Your task to perform on an android device: toggle javascript in the chrome app Image 0: 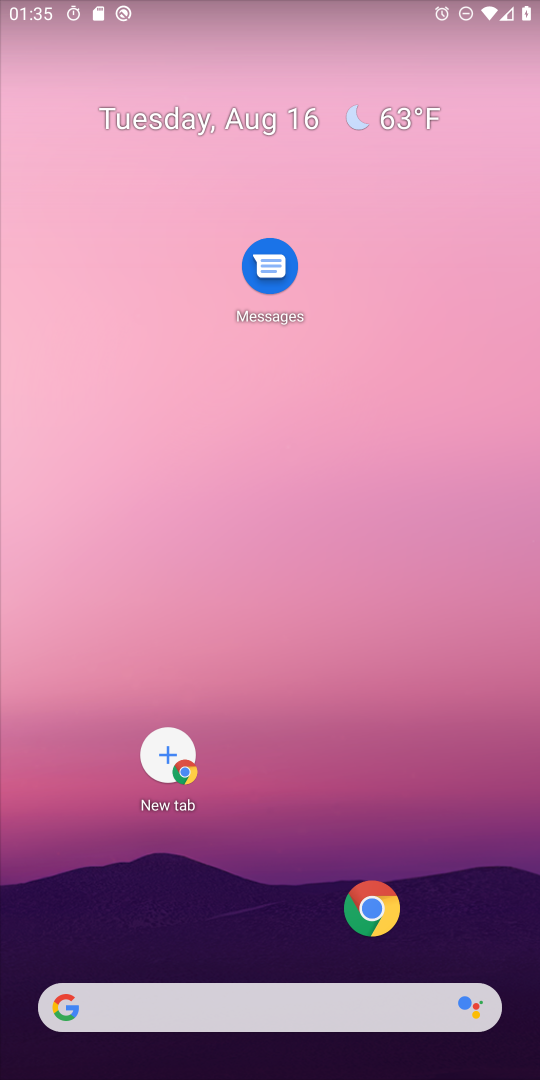
Step 0: click (354, 909)
Your task to perform on an android device: toggle javascript in the chrome app Image 1: 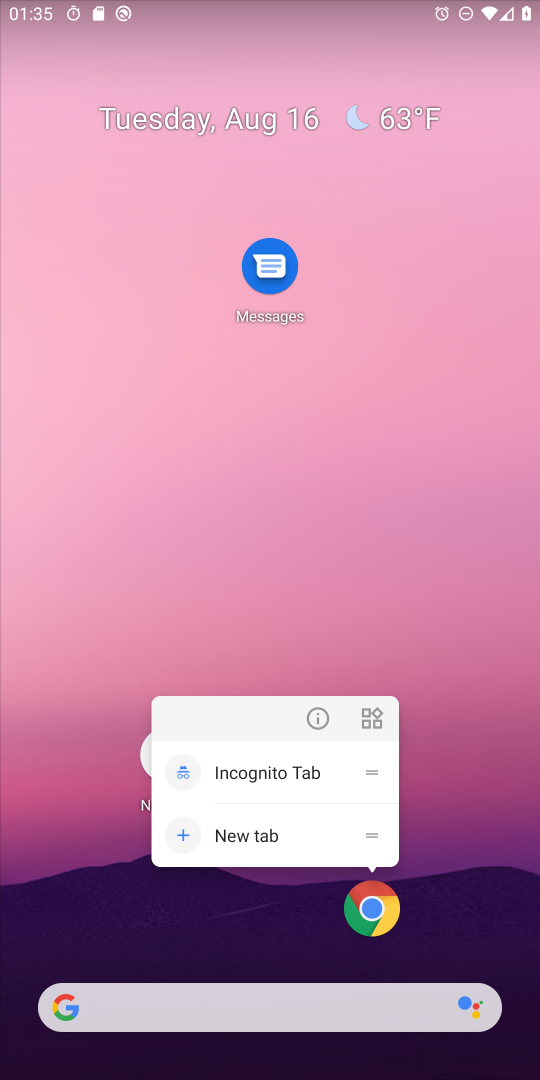
Step 1: click (373, 909)
Your task to perform on an android device: toggle javascript in the chrome app Image 2: 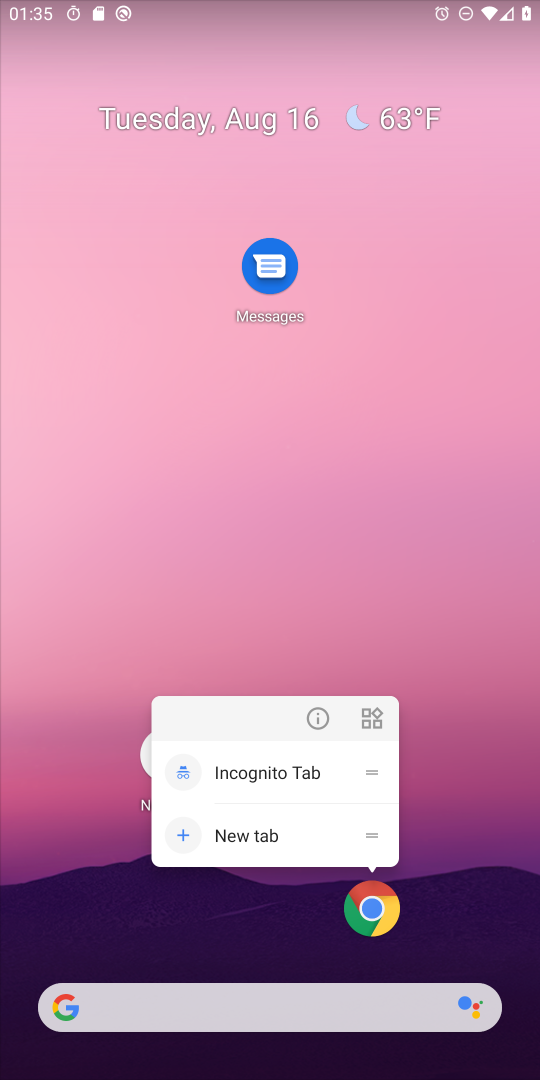
Step 2: click (373, 909)
Your task to perform on an android device: toggle javascript in the chrome app Image 3: 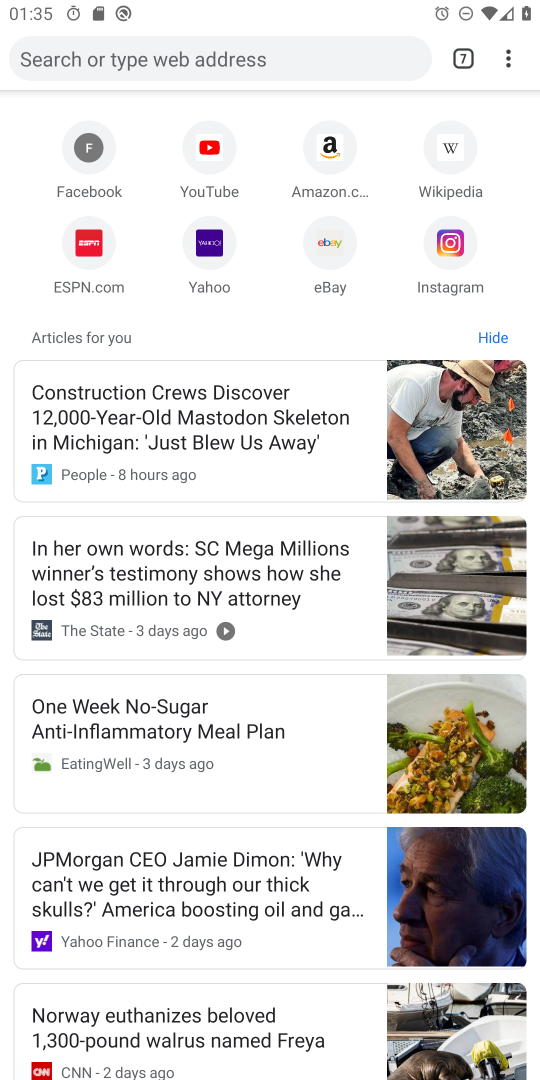
Step 3: click (518, 53)
Your task to perform on an android device: toggle javascript in the chrome app Image 4: 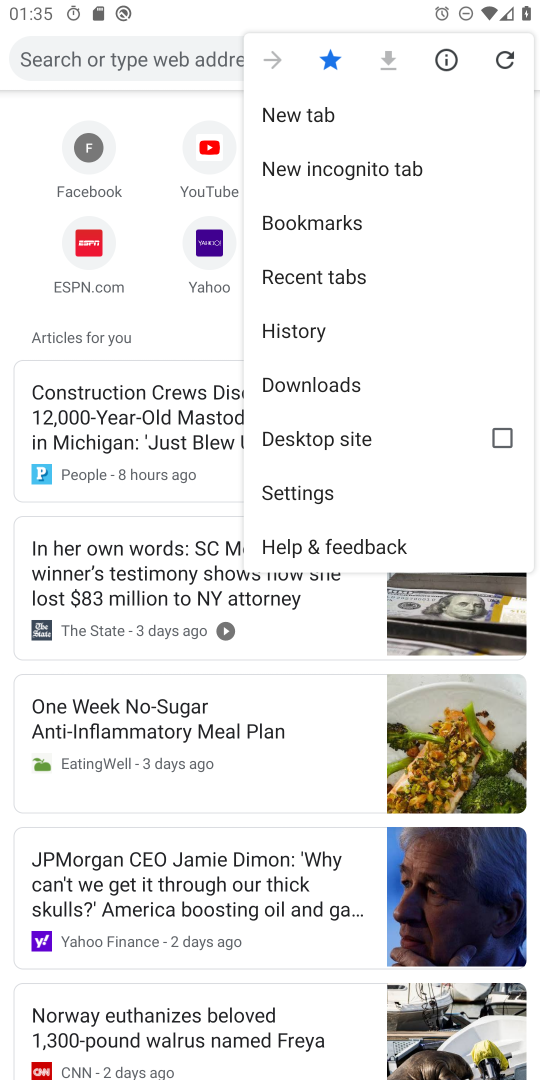
Step 4: click (317, 488)
Your task to perform on an android device: toggle javascript in the chrome app Image 5: 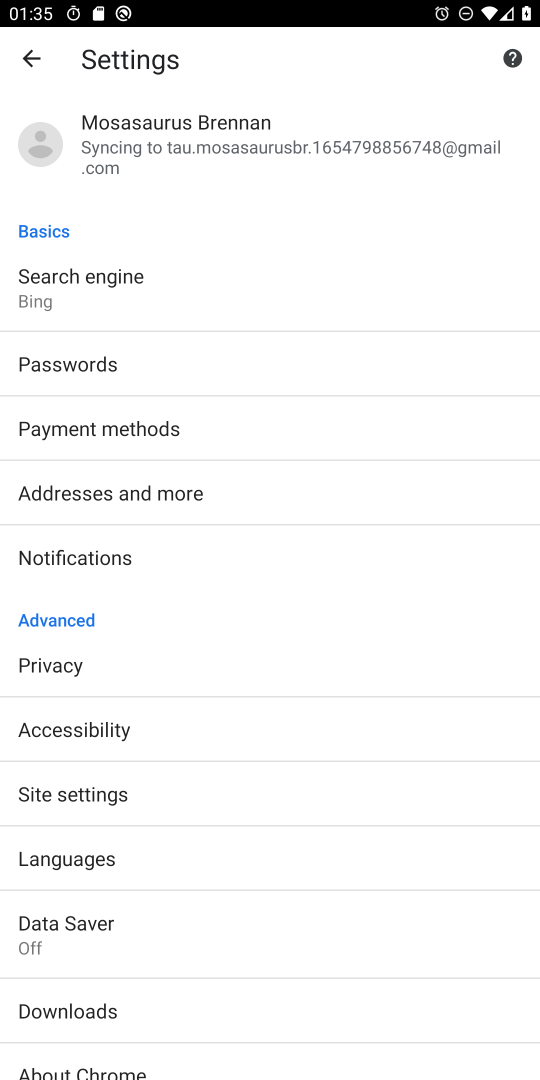
Step 5: click (204, 793)
Your task to perform on an android device: toggle javascript in the chrome app Image 6: 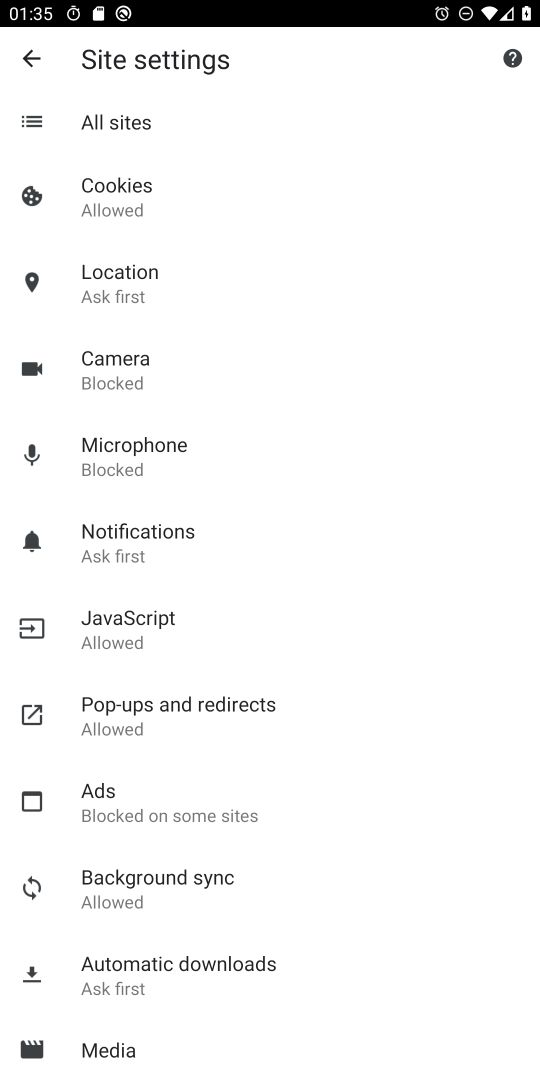
Step 6: click (116, 626)
Your task to perform on an android device: toggle javascript in the chrome app Image 7: 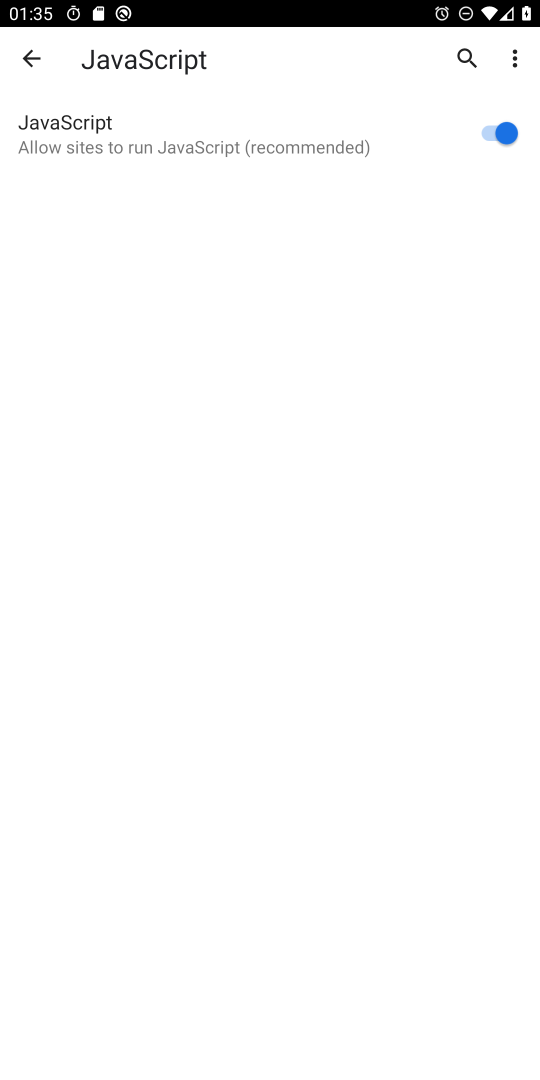
Step 7: click (492, 134)
Your task to perform on an android device: toggle javascript in the chrome app Image 8: 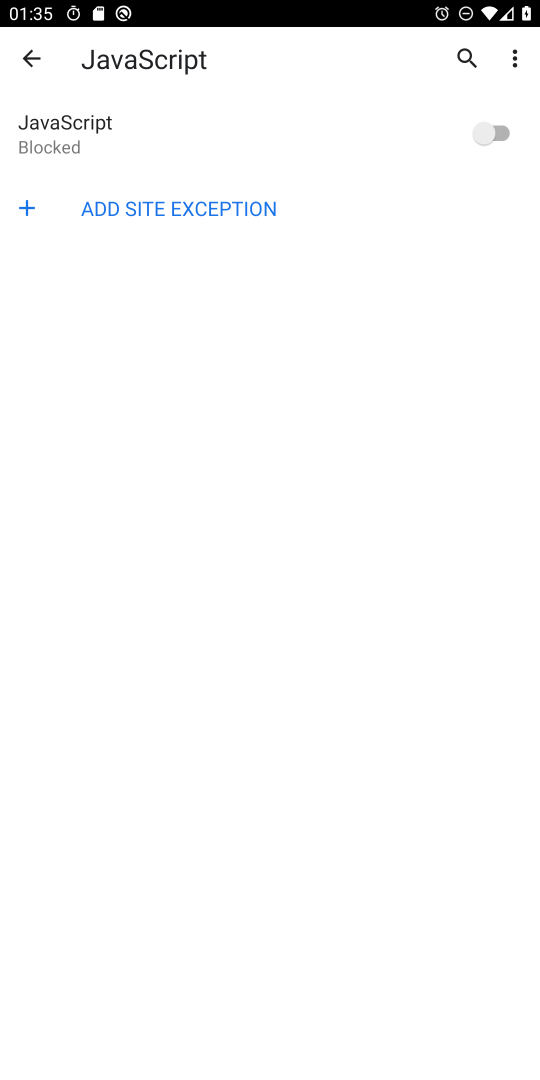
Step 8: task complete